Your task to perform on an android device: open a new tab in the chrome app Image 0: 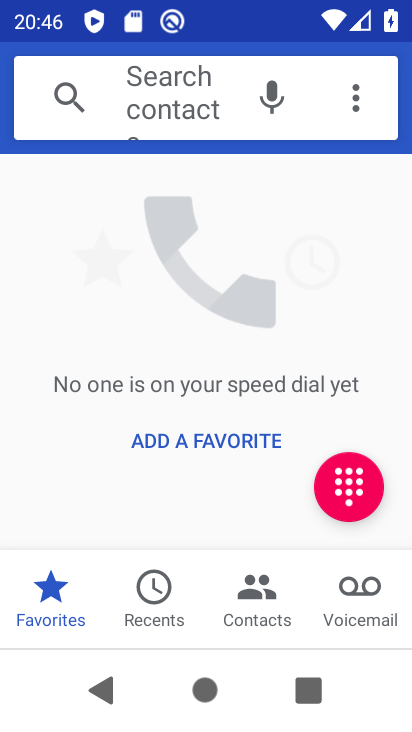
Step 0: press home button
Your task to perform on an android device: open a new tab in the chrome app Image 1: 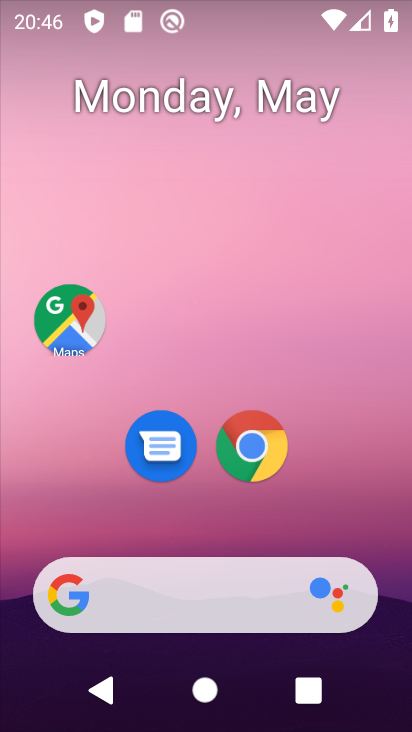
Step 1: click (247, 436)
Your task to perform on an android device: open a new tab in the chrome app Image 2: 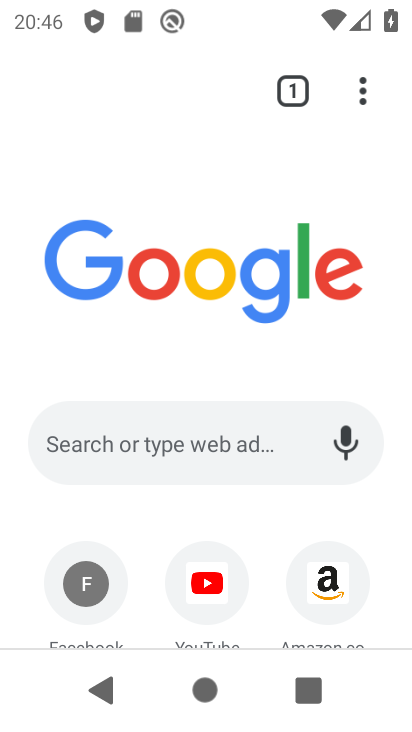
Step 2: task complete